Your task to perform on an android device: Turn off the flashlight Image 0: 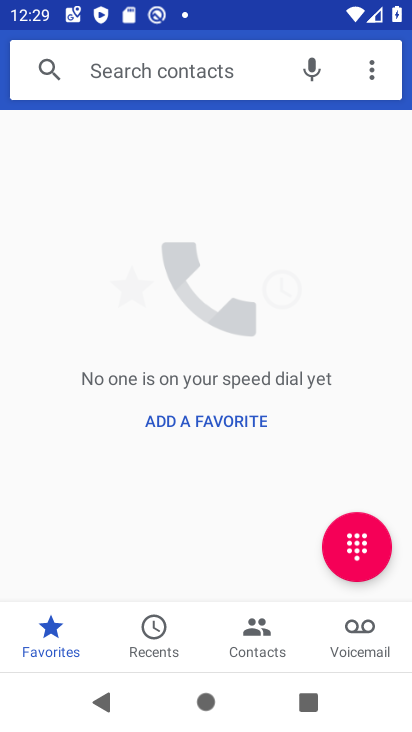
Step 0: press home button
Your task to perform on an android device: Turn off the flashlight Image 1: 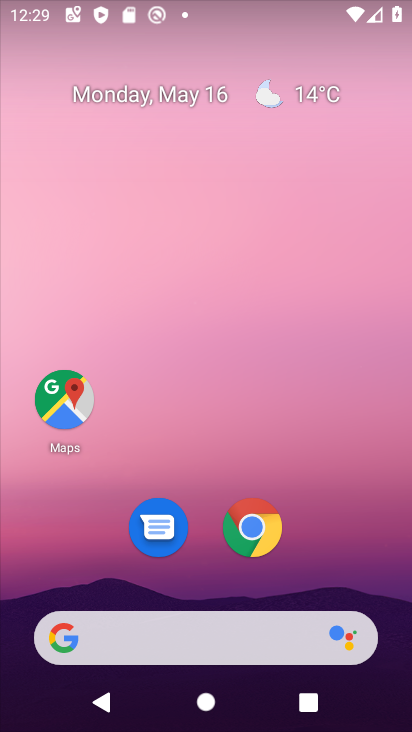
Step 1: drag from (191, 590) to (207, 104)
Your task to perform on an android device: Turn off the flashlight Image 2: 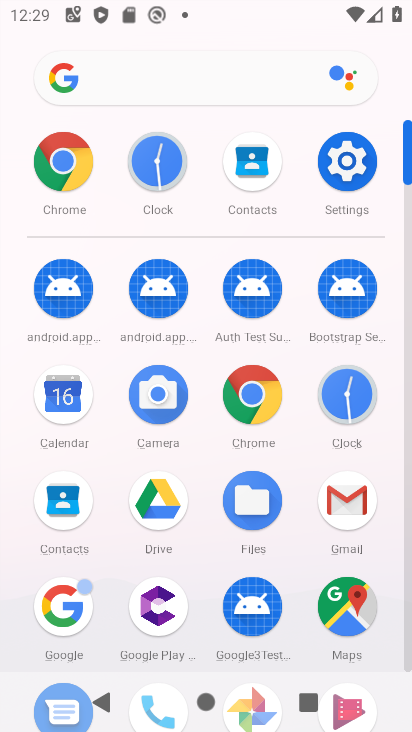
Step 2: click (350, 169)
Your task to perform on an android device: Turn off the flashlight Image 3: 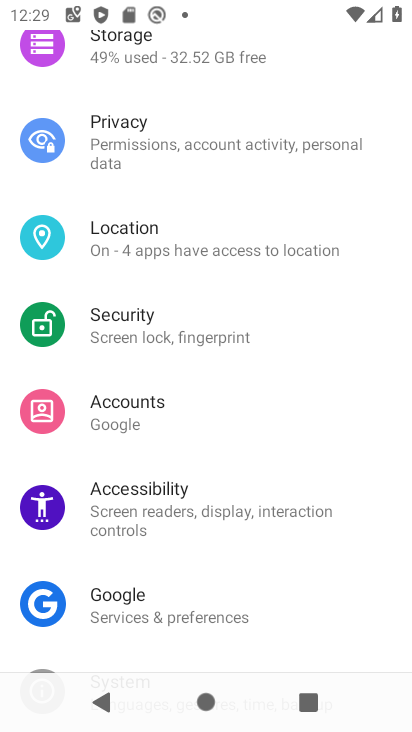
Step 3: drag from (252, 196) to (254, 527)
Your task to perform on an android device: Turn off the flashlight Image 4: 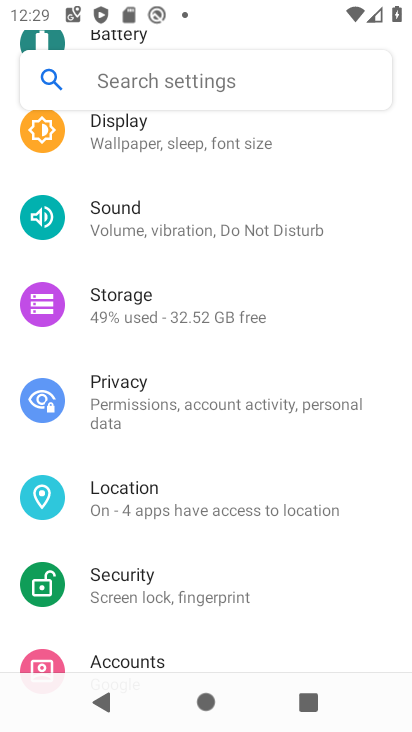
Step 4: click (197, 79)
Your task to perform on an android device: Turn off the flashlight Image 5: 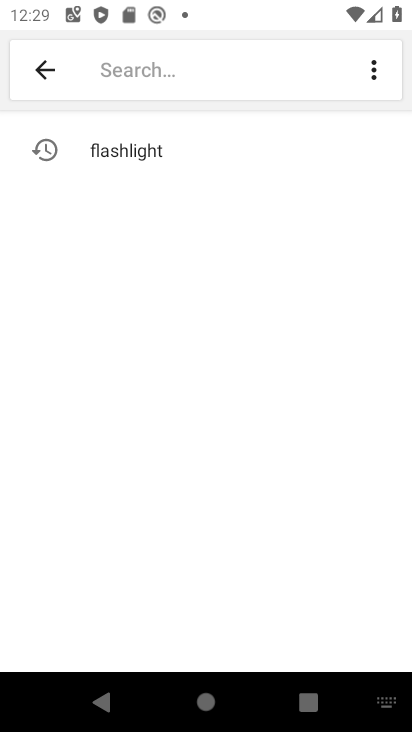
Step 5: type "flashlight"
Your task to perform on an android device: Turn off the flashlight Image 6: 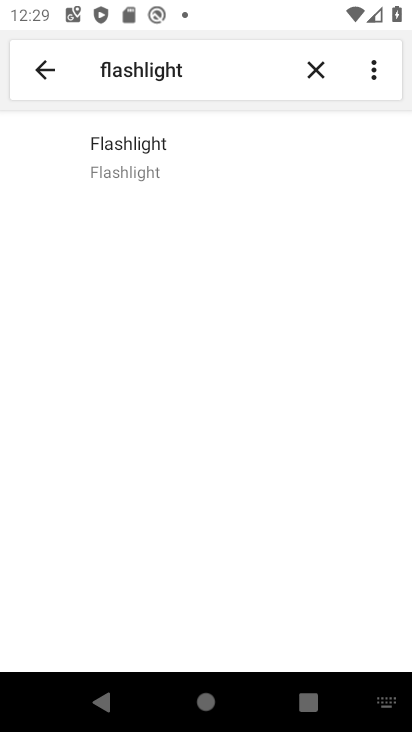
Step 6: click (139, 151)
Your task to perform on an android device: Turn off the flashlight Image 7: 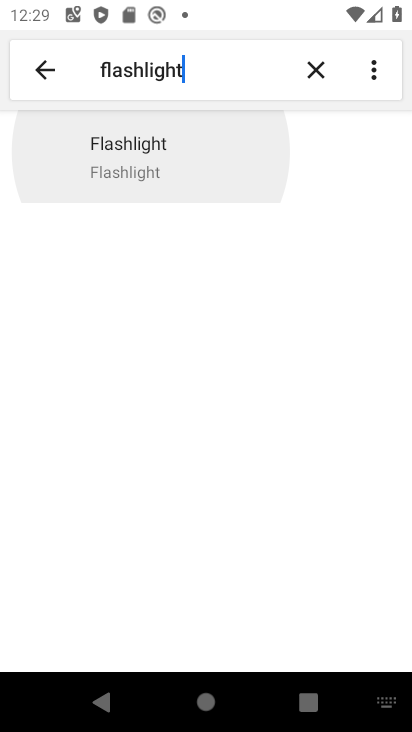
Step 7: click (139, 151)
Your task to perform on an android device: Turn off the flashlight Image 8: 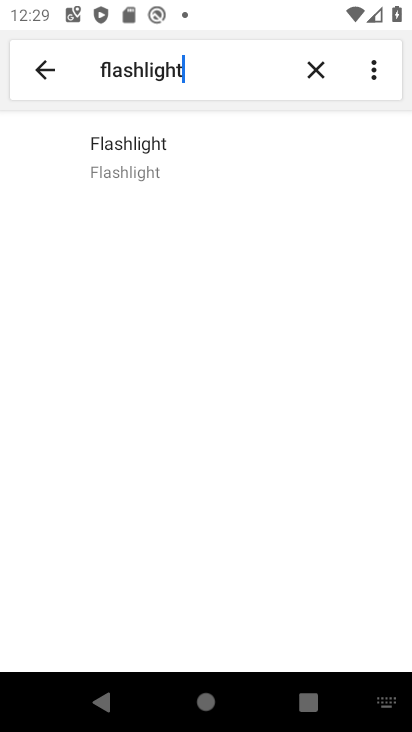
Step 8: click (139, 151)
Your task to perform on an android device: Turn off the flashlight Image 9: 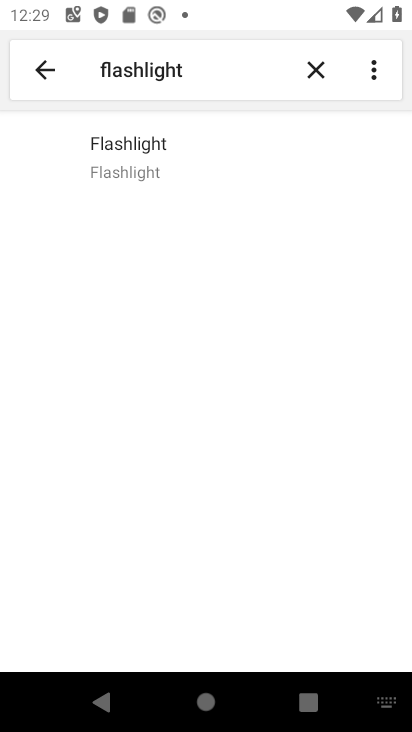
Step 9: task complete